Your task to perform on an android device: open app "HBO Max: Stream TV & Movies" (install if not already installed) and go to login screen Image 0: 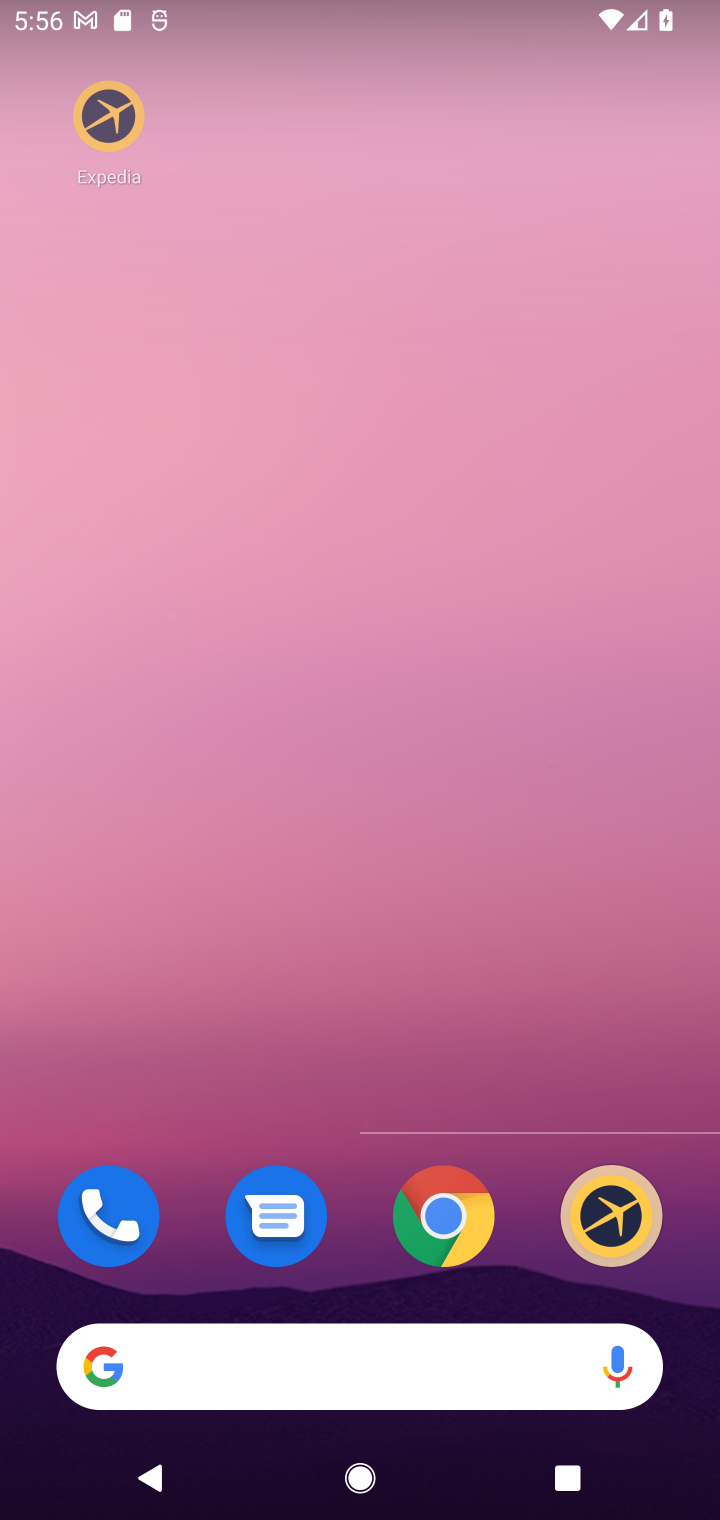
Step 0: press home button
Your task to perform on an android device: open app "HBO Max: Stream TV & Movies" (install if not already installed) and go to login screen Image 1: 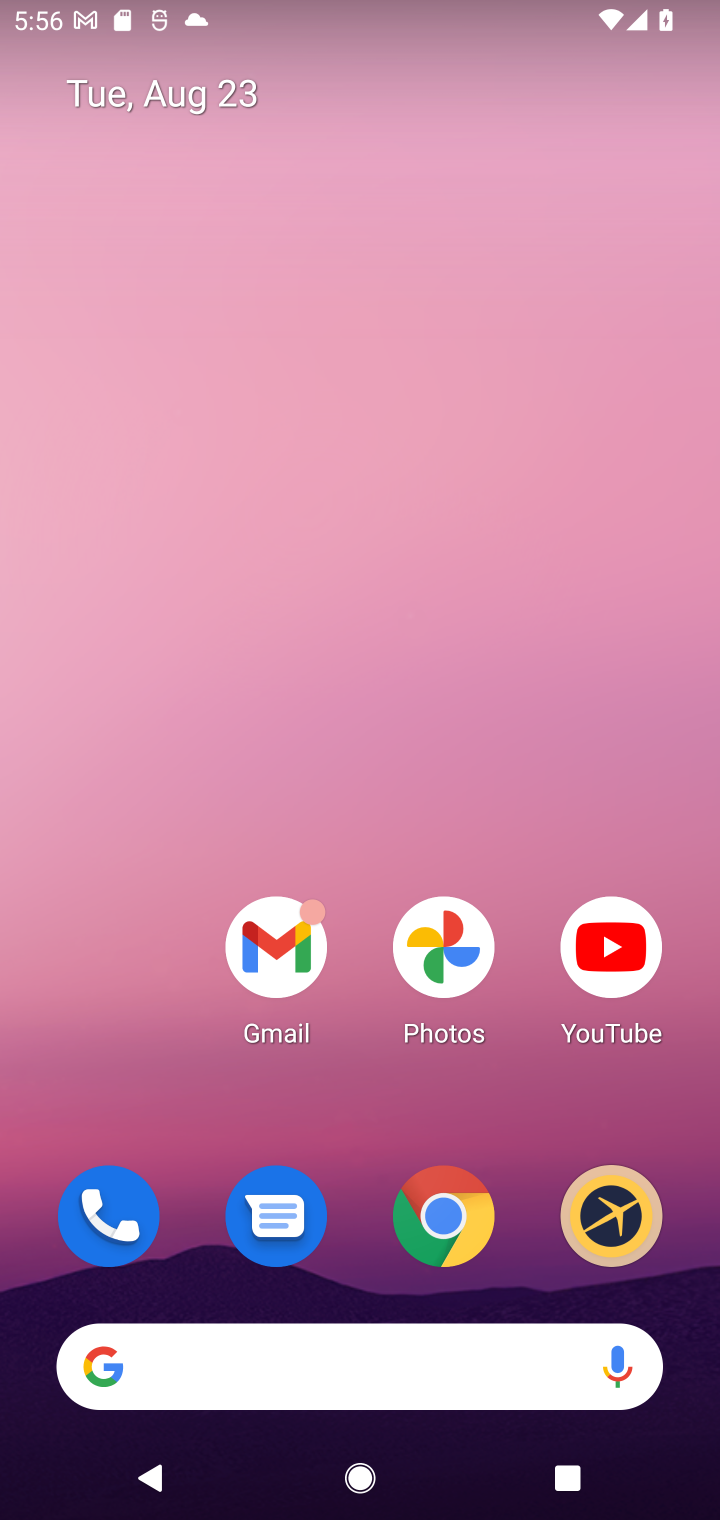
Step 1: drag from (462, 933) to (499, 50)
Your task to perform on an android device: open app "HBO Max: Stream TV & Movies" (install if not already installed) and go to login screen Image 2: 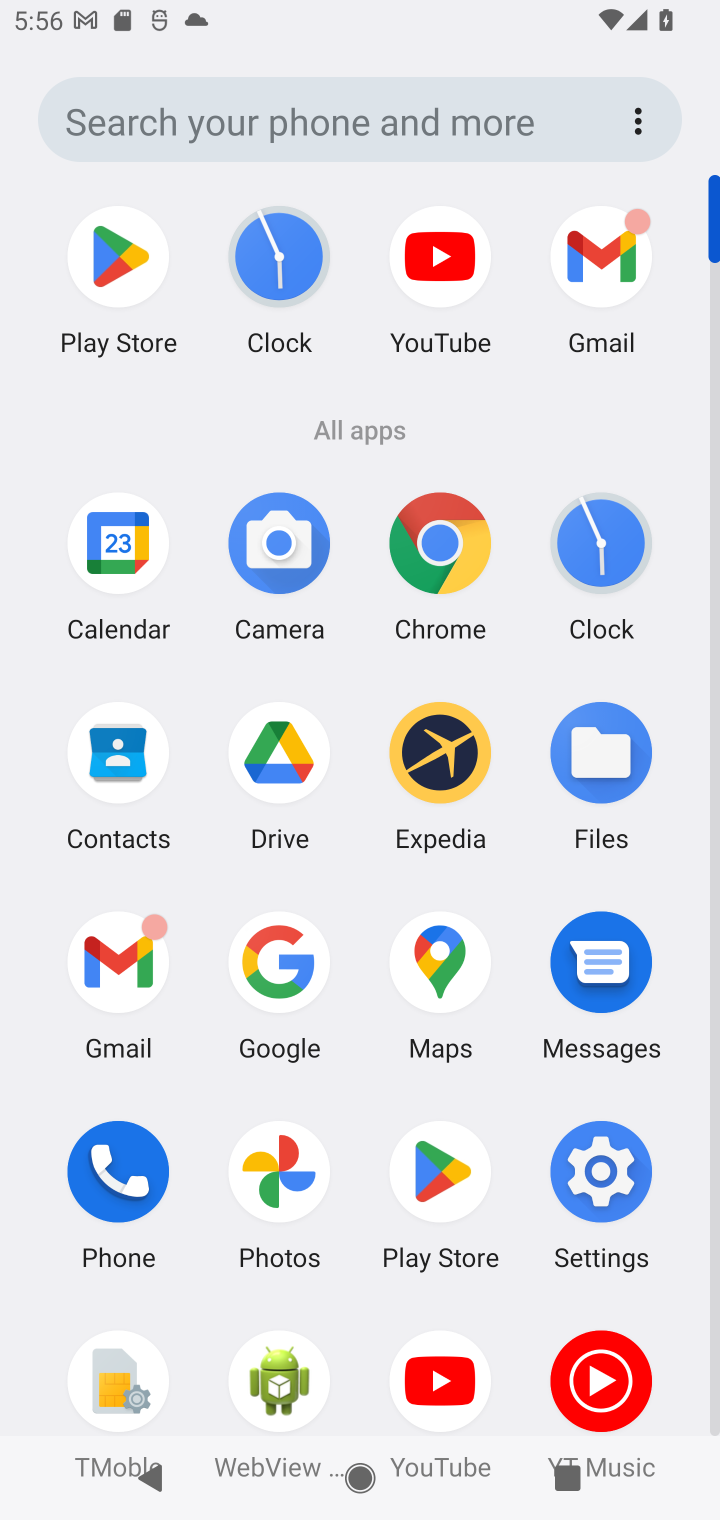
Step 2: click (463, 1183)
Your task to perform on an android device: open app "HBO Max: Stream TV & Movies" (install if not already installed) and go to login screen Image 3: 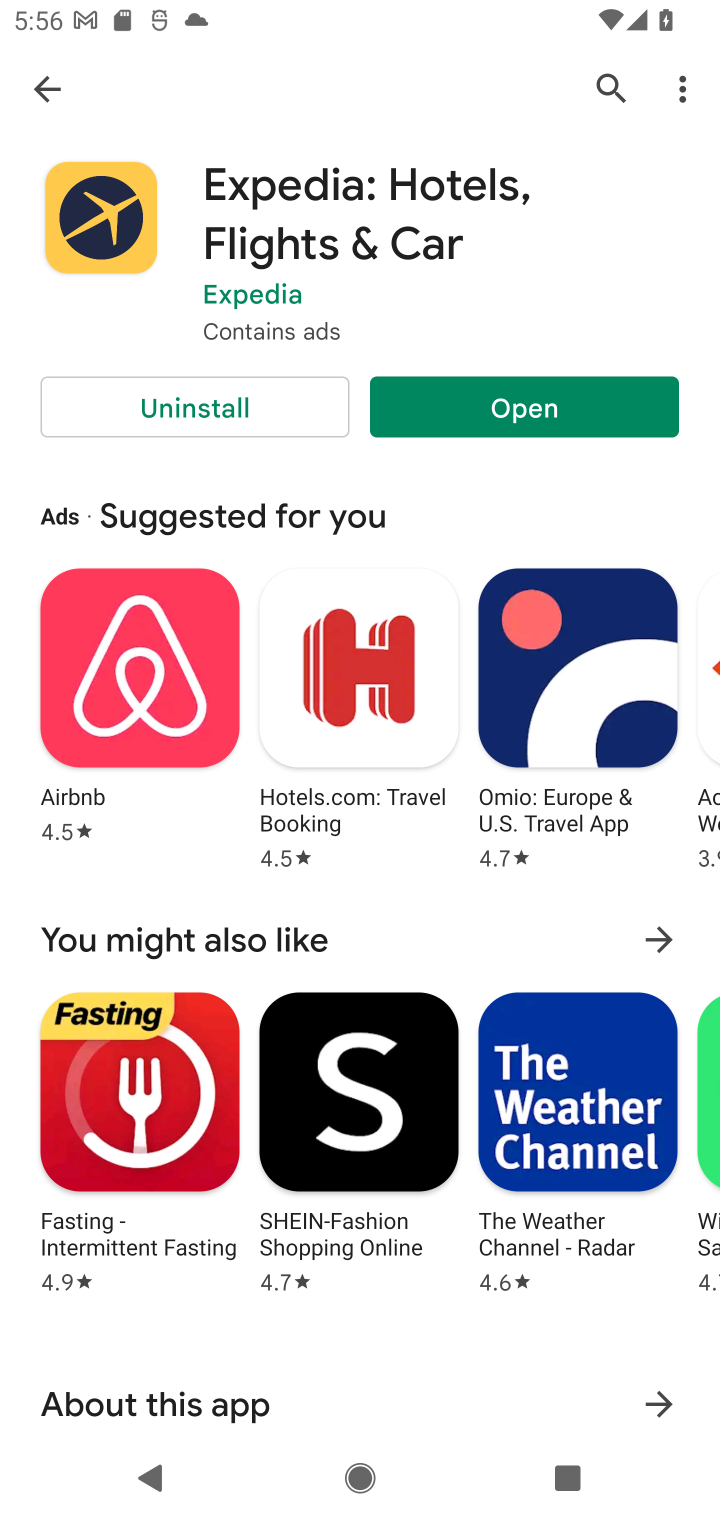
Step 3: click (601, 88)
Your task to perform on an android device: open app "HBO Max: Stream TV & Movies" (install if not already installed) and go to login screen Image 4: 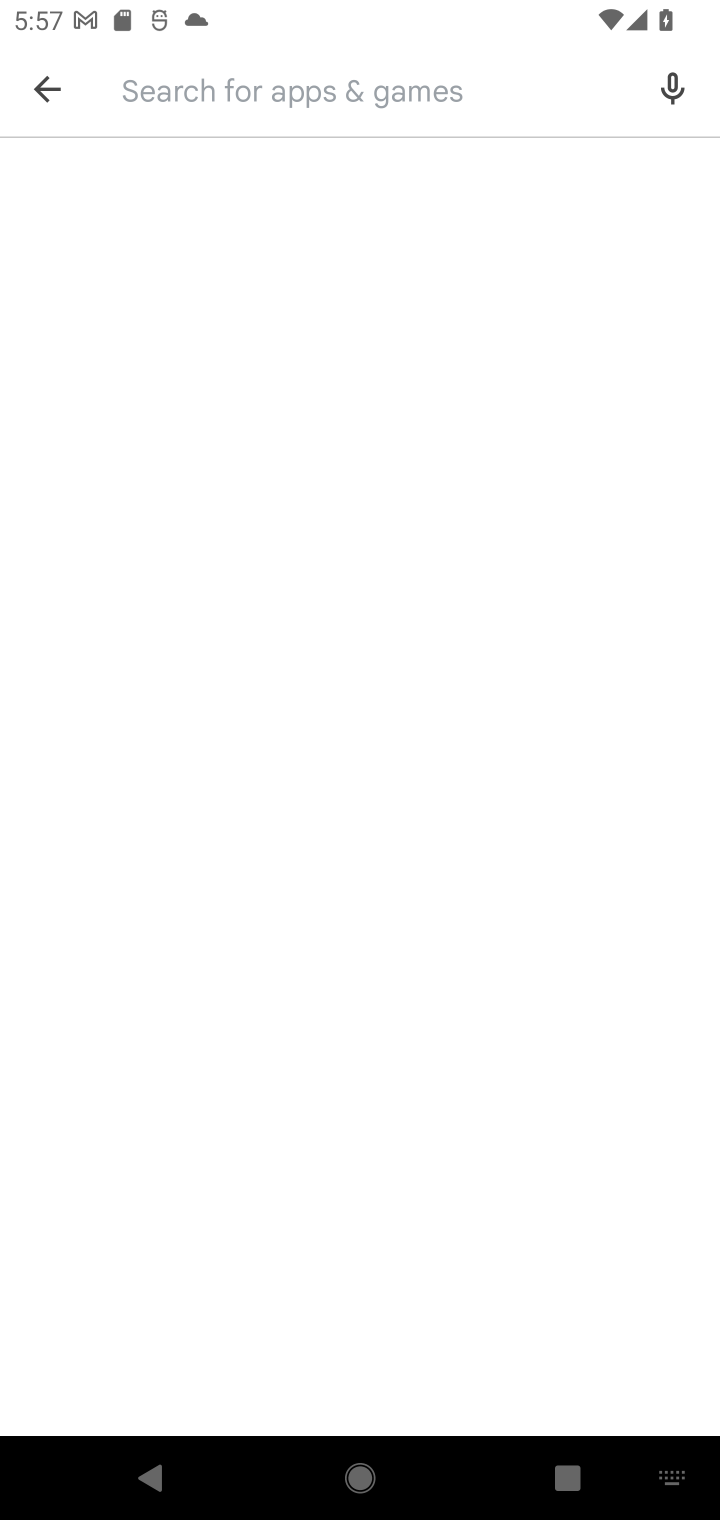
Step 4: type "HBO Max: Stream TV & Movies"
Your task to perform on an android device: open app "HBO Max: Stream TV & Movies" (install if not already installed) and go to login screen Image 5: 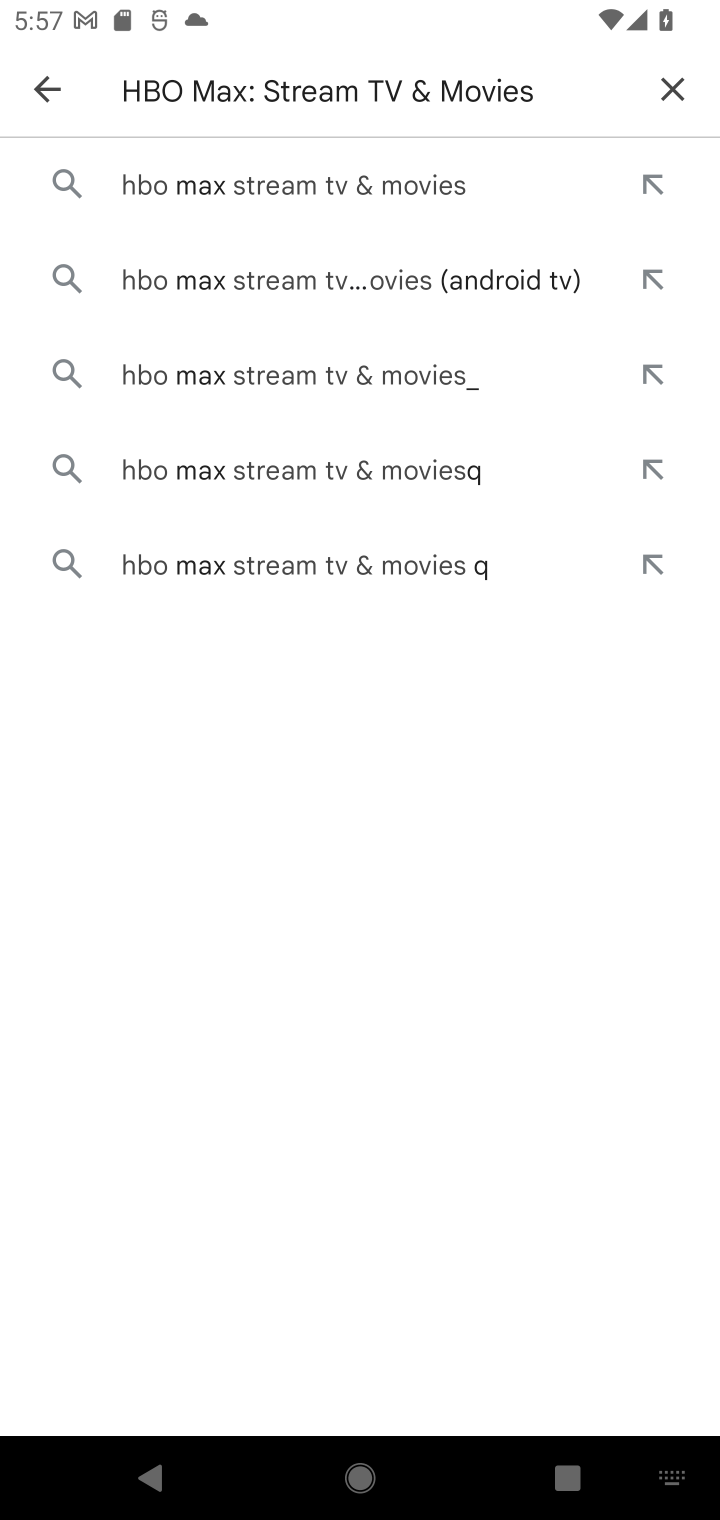
Step 5: click (366, 198)
Your task to perform on an android device: open app "HBO Max: Stream TV & Movies" (install if not already installed) and go to login screen Image 6: 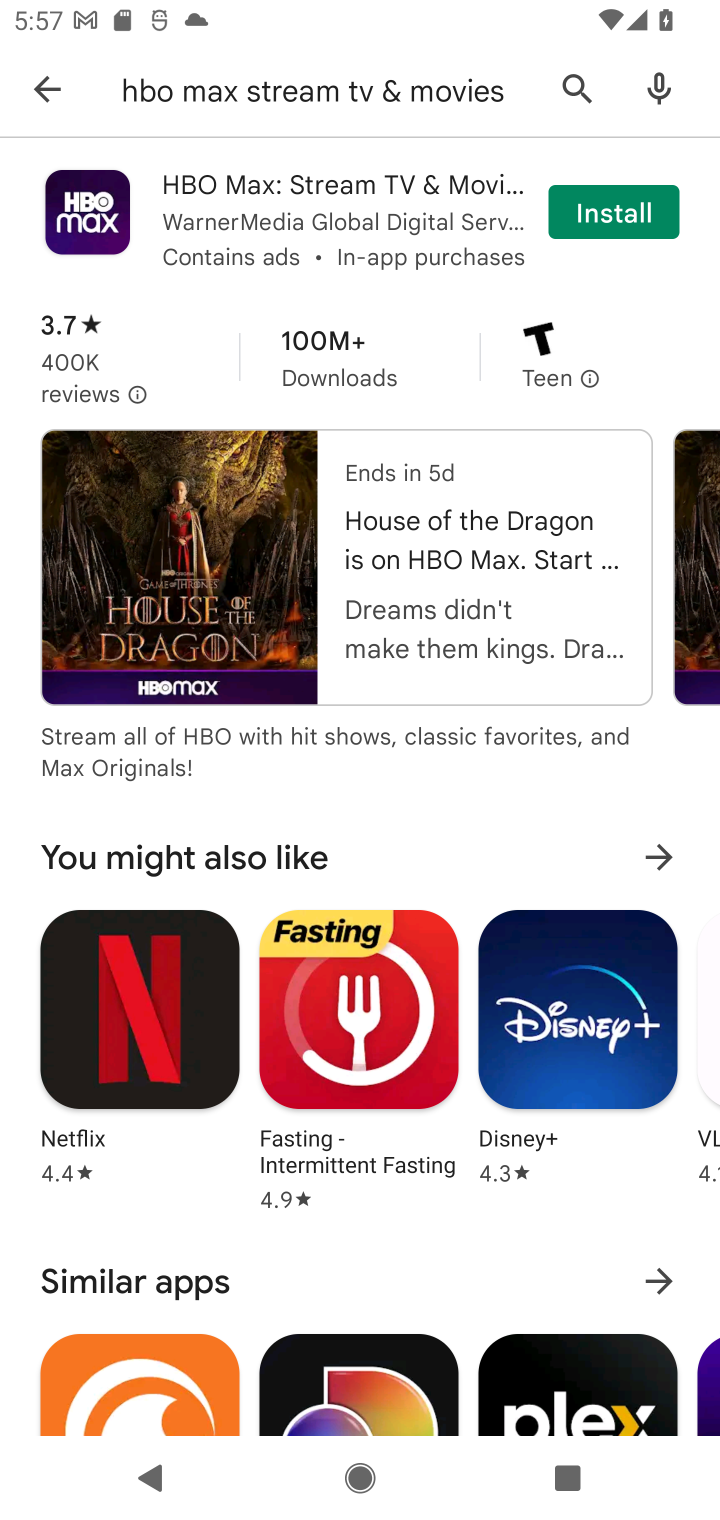
Step 6: click (640, 209)
Your task to perform on an android device: open app "HBO Max: Stream TV & Movies" (install if not already installed) and go to login screen Image 7: 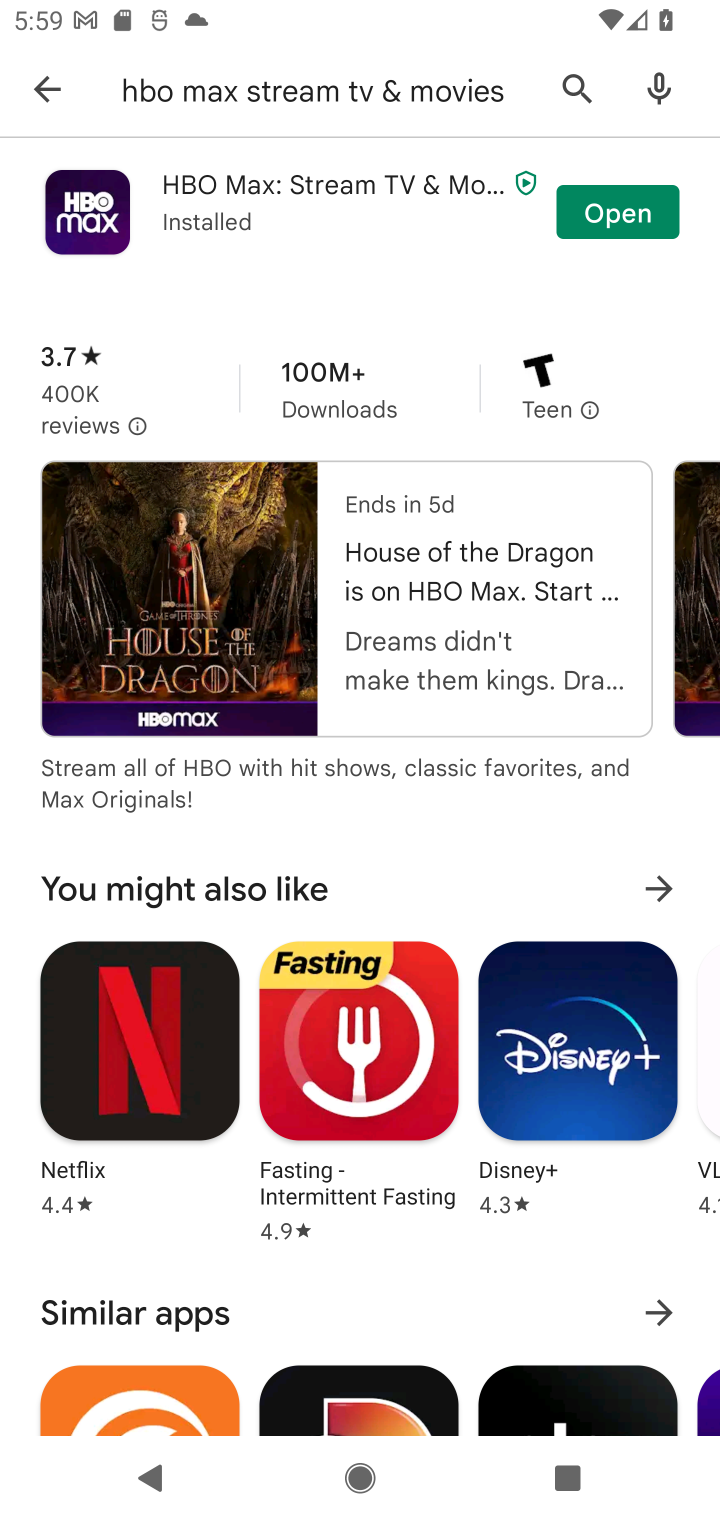
Step 7: click (617, 207)
Your task to perform on an android device: open app "HBO Max: Stream TV & Movies" (install if not already installed) and go to login screen Image 8: 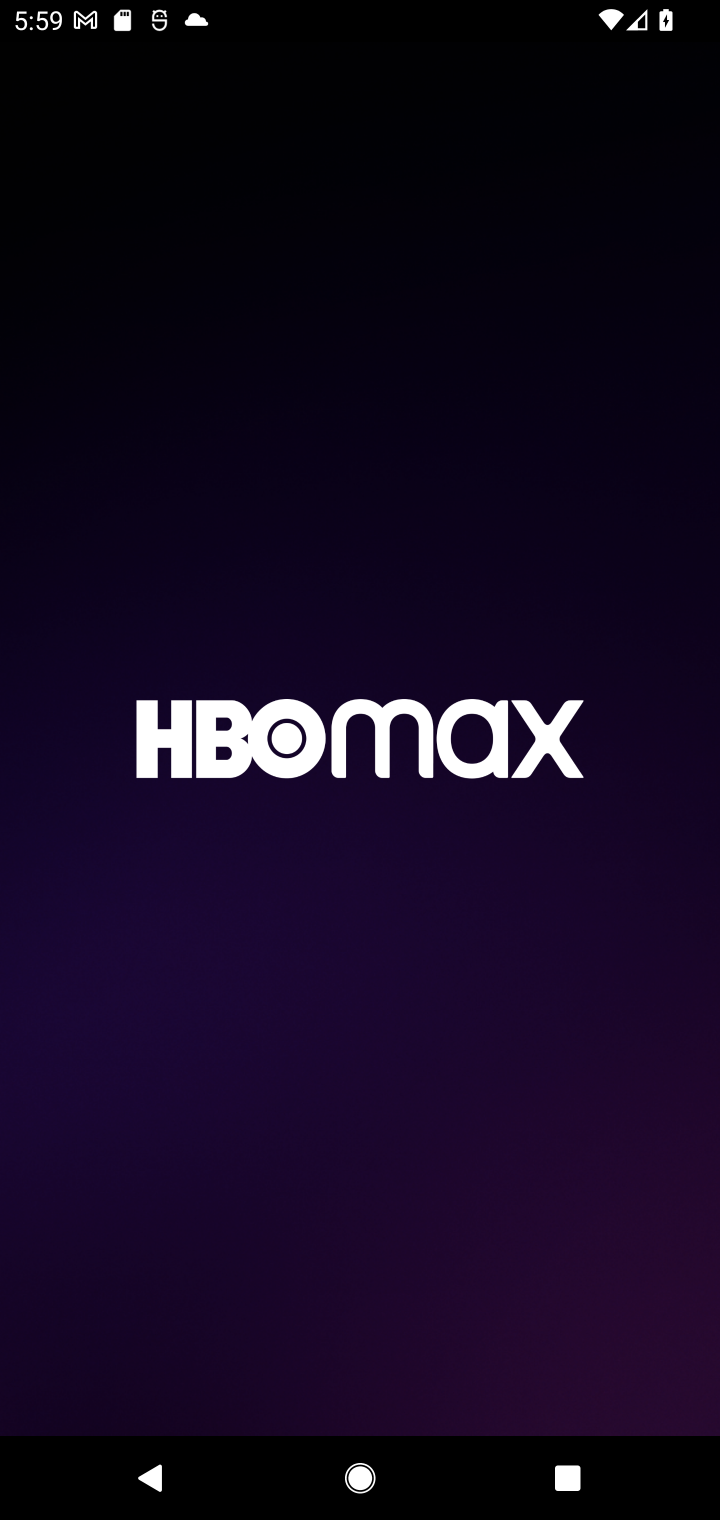
Step 8: task complete